Your task to perform on an android device: install app "Google News" Image 0: 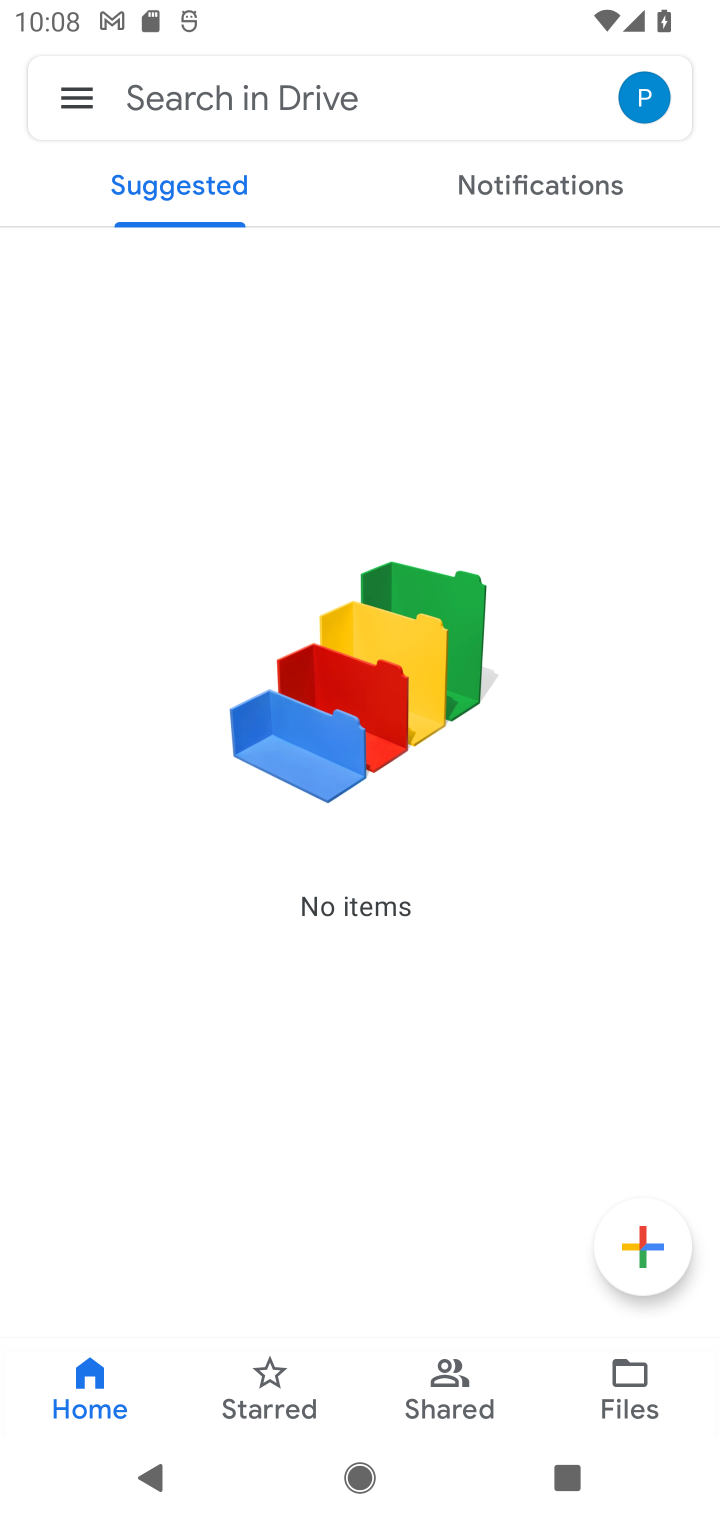
Step 0: press home button
Your task to perform on an android device: install app "Google News" Image 1: 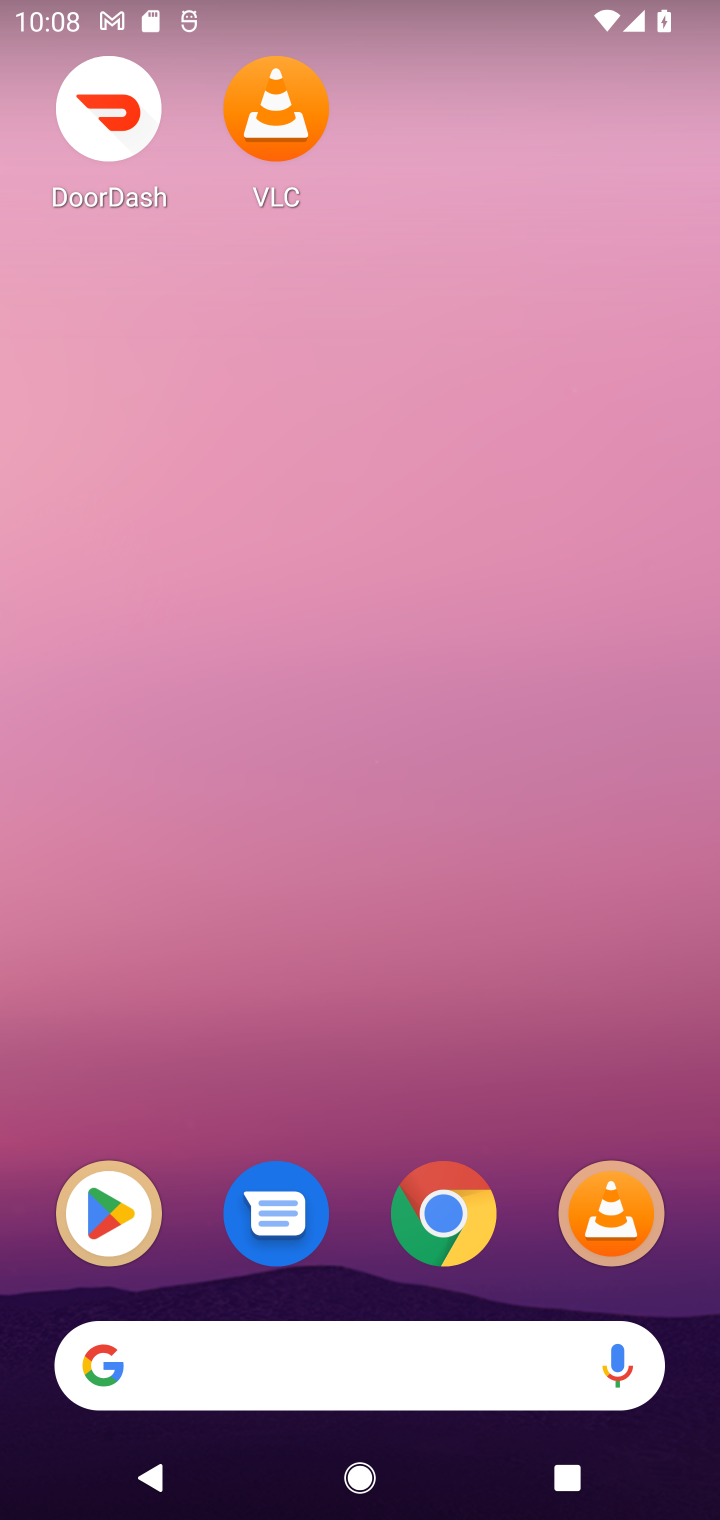
Step 1: click (90, 1204)
Your task to perform on an android device: install app "Google News" Image 2: 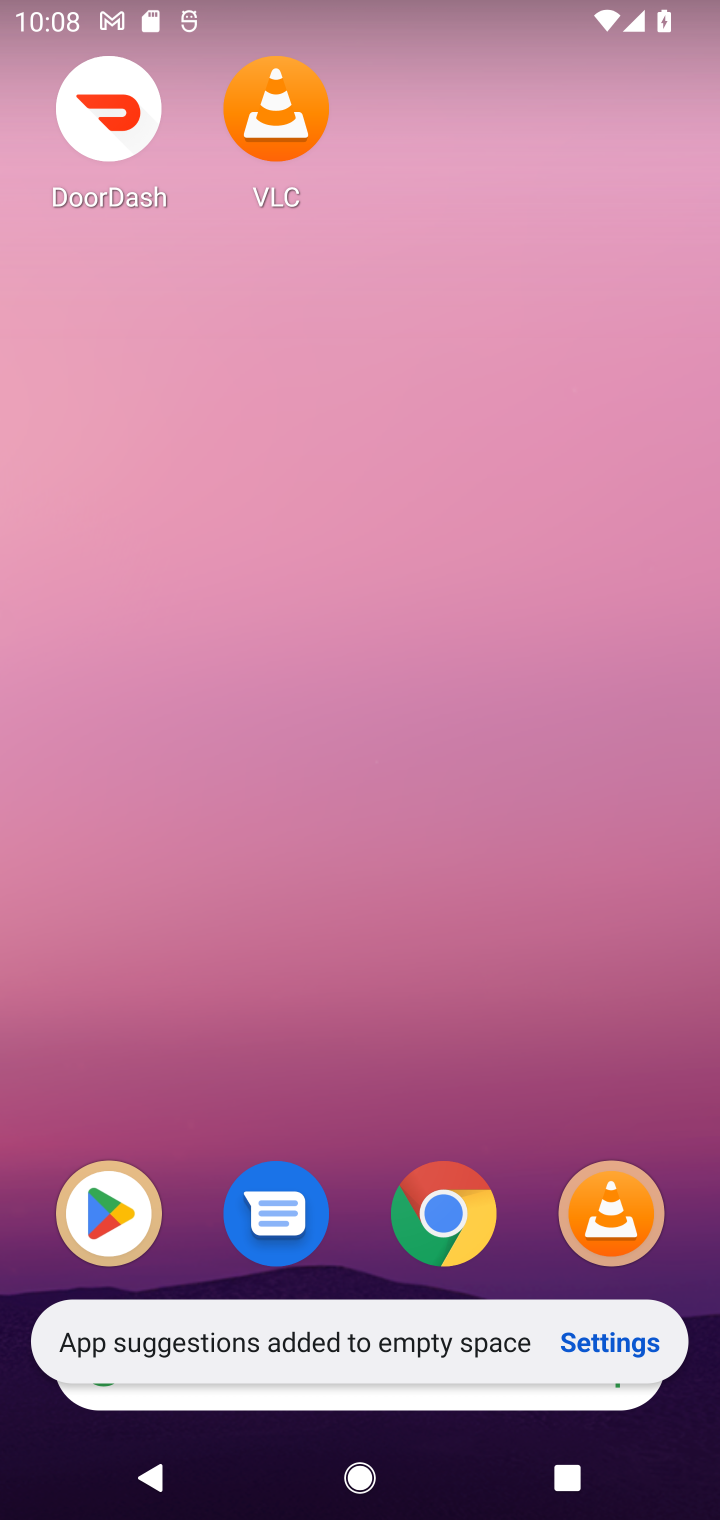
Step 2: click (110, 1210)
Your task to perform on an android device: install app "Google News" Image 3: 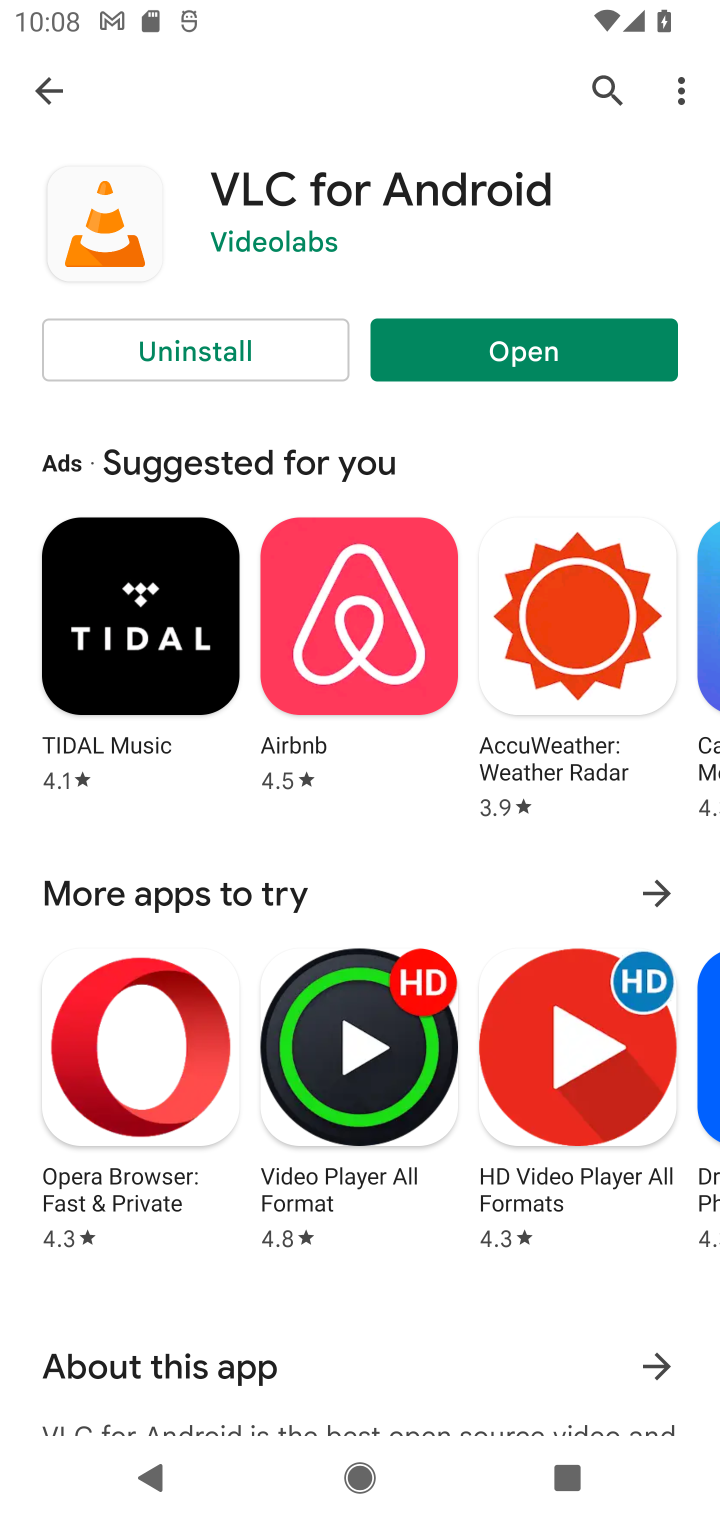
Step 3: click (42, 89)
Your task to perform on an android device: install app "Google News" Image 4: 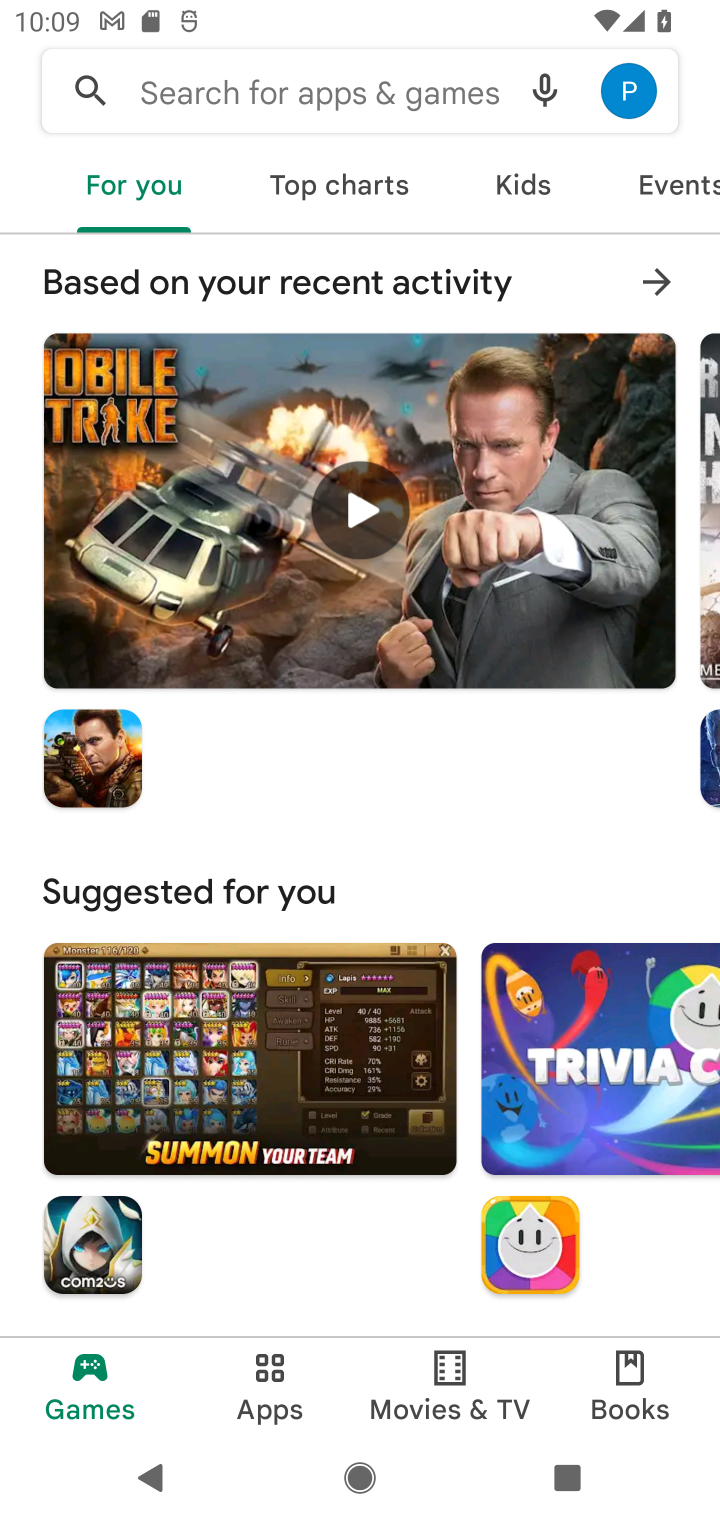
Step 4: click (270, 111)
Your task to perform on an android device: install app "Google News" Image 5: 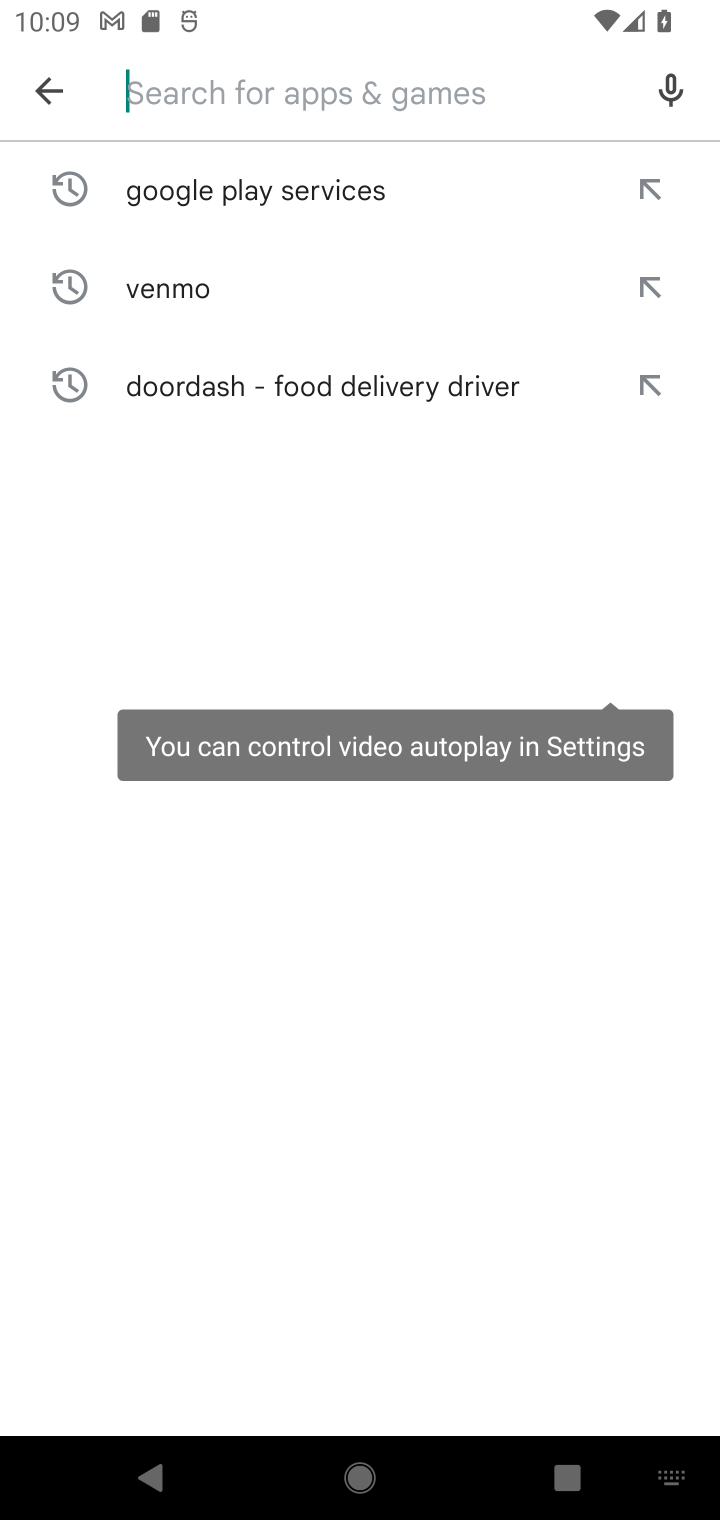
Step 5: type "Google News"
Your task to perform on an android device: install app "Google News" Image 6: 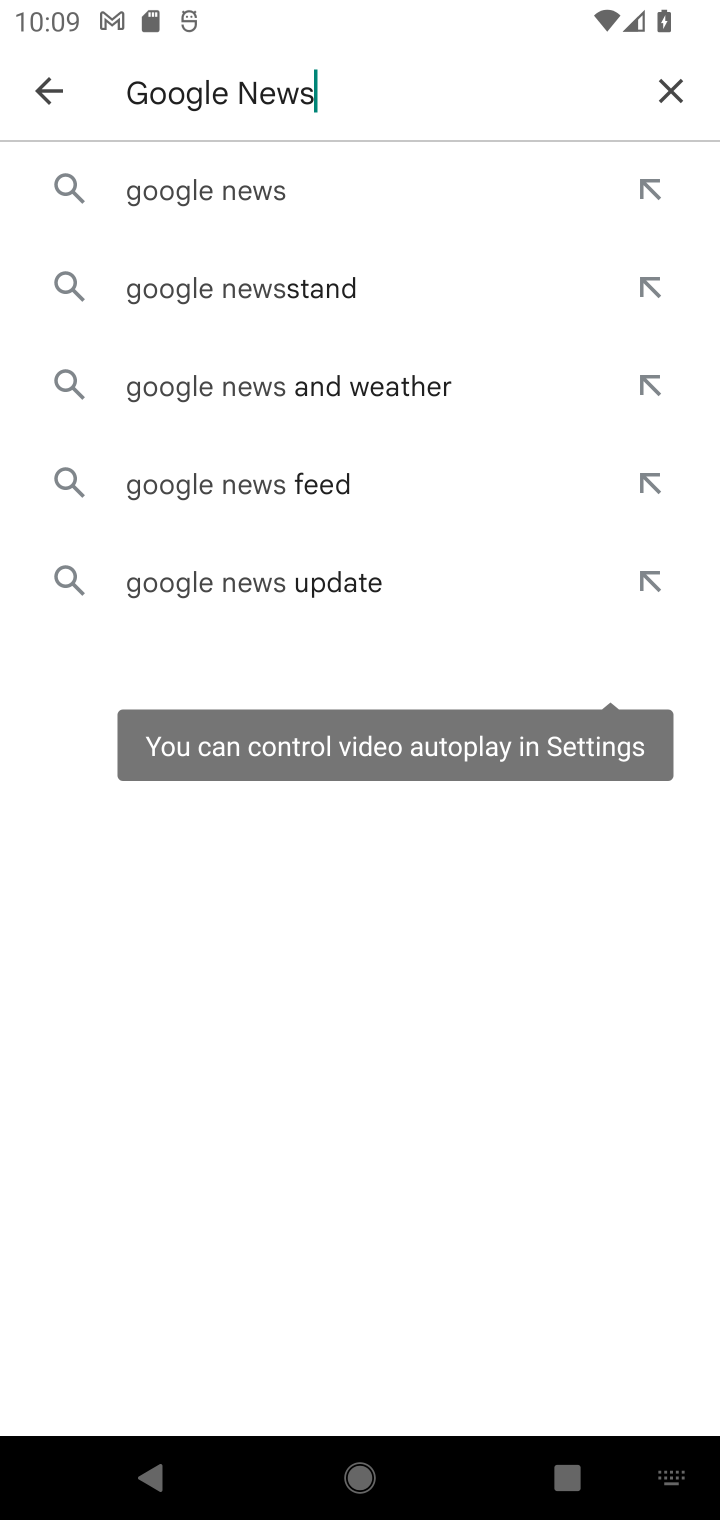
Step 6: click (168, 178)
Your task to perform on an android device: install app "Google News" Image 7: 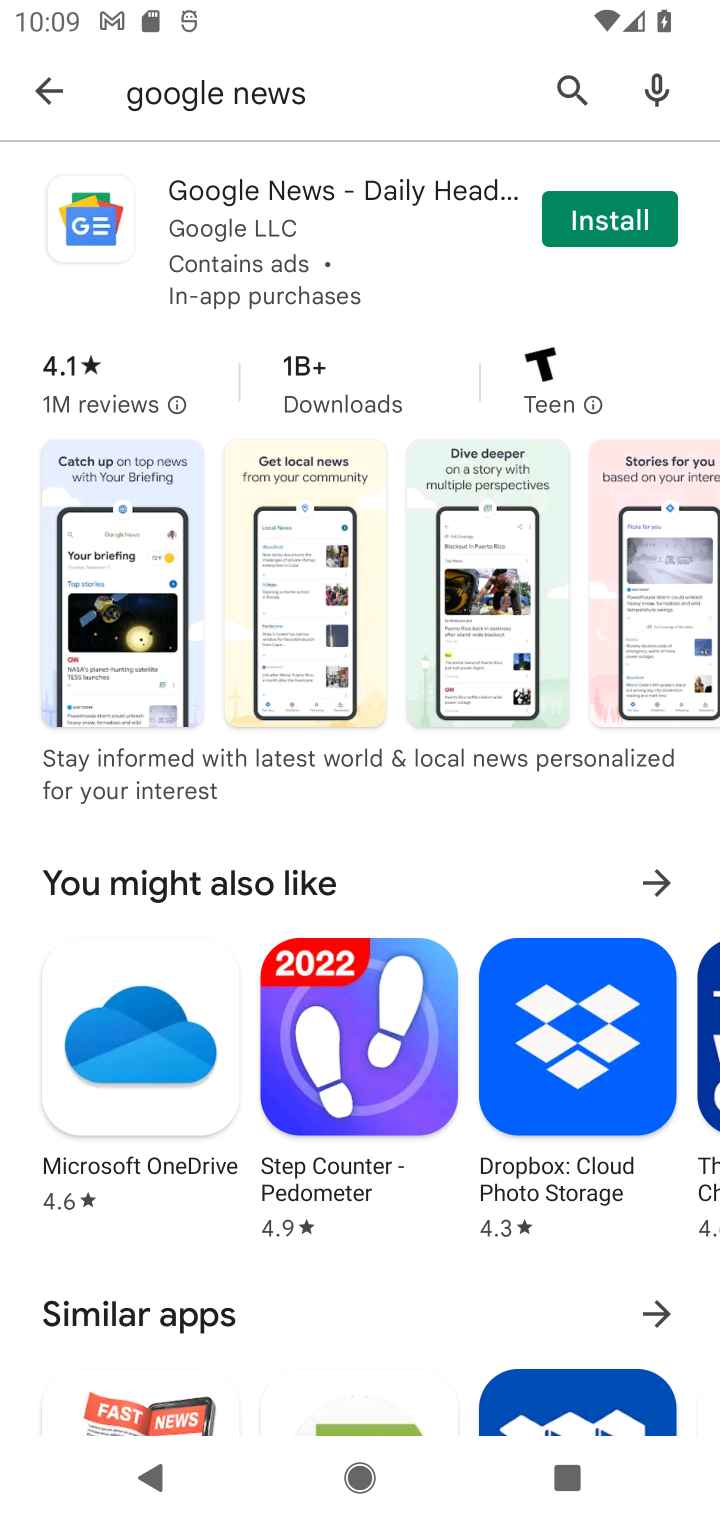
Step 7: click (594, 233)
Your task to perform on an android device: install app "Google News" Image 8: 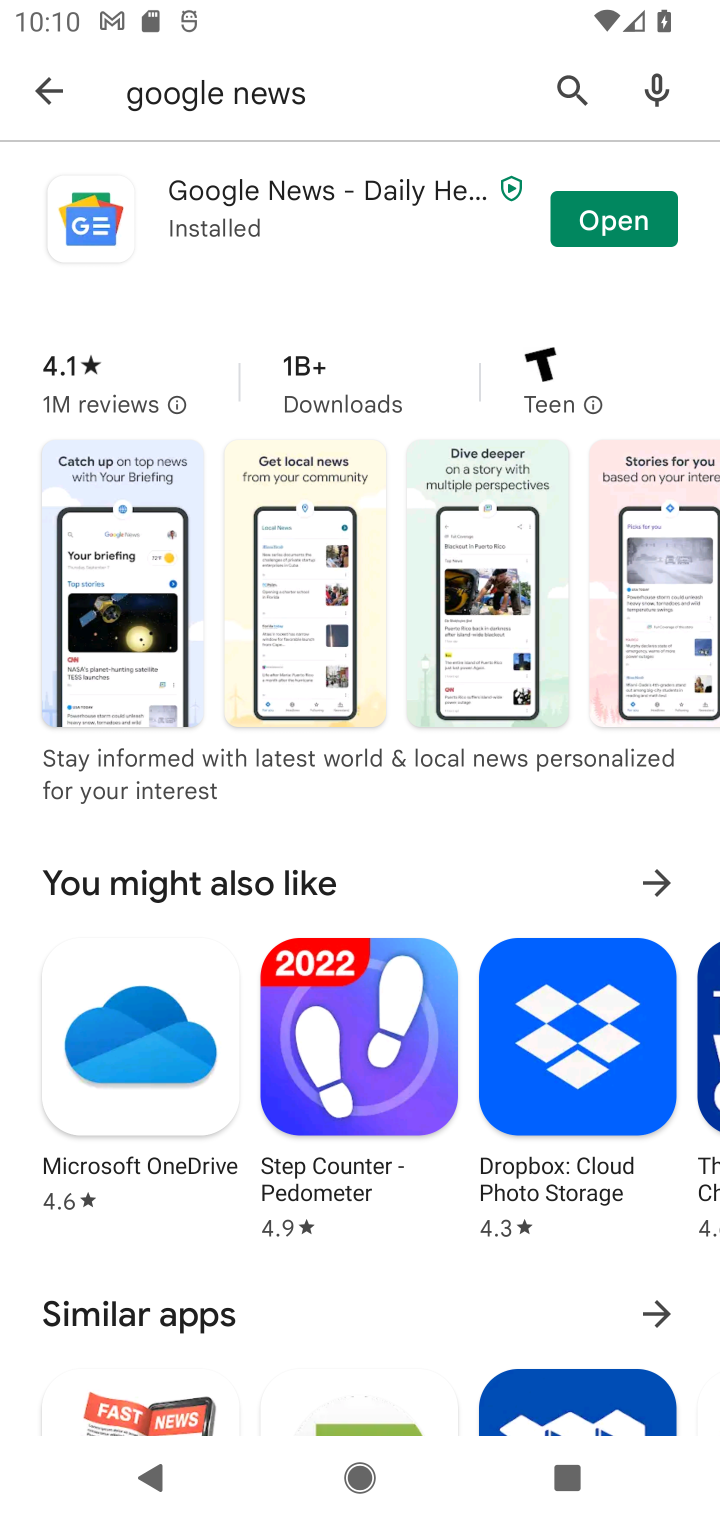
Step 8: click (594, 233)
Your task to perform on an android device: install app "Google News" Image 9: 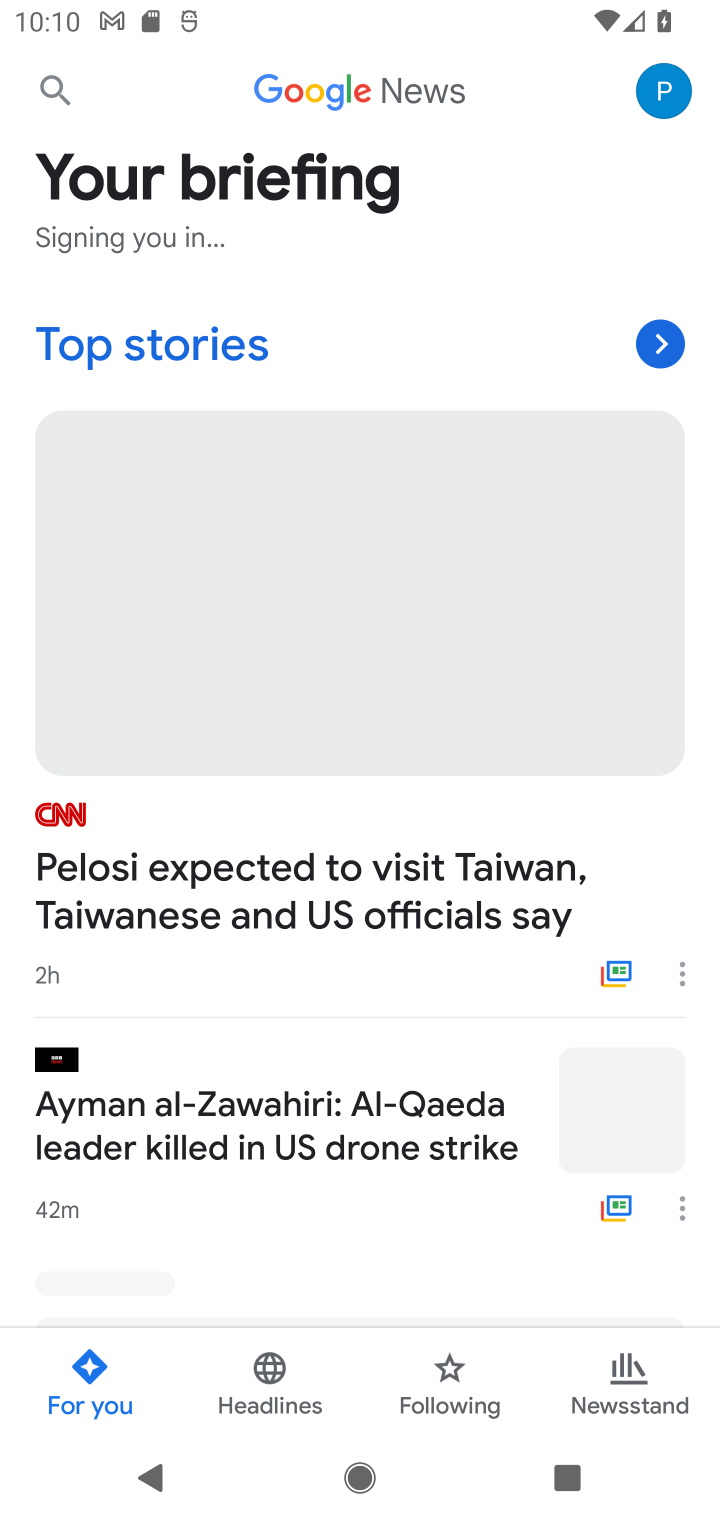
Step 9: task complete